Your task to perform on an android device: Open privacy settings Image 0: 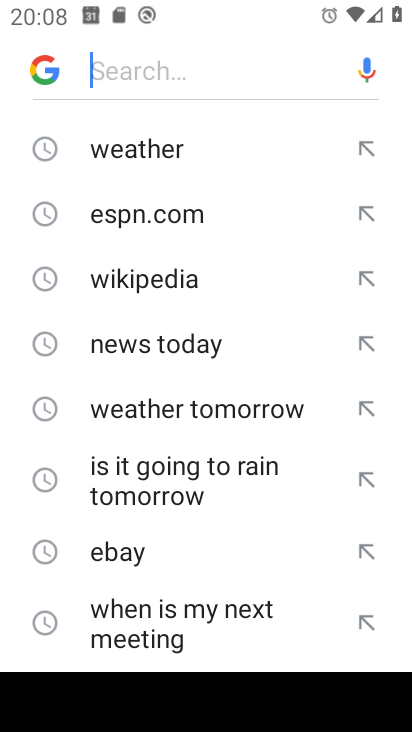
Step 0: press home button
Your task to perform on an android device: Open privacy settings Image 1: 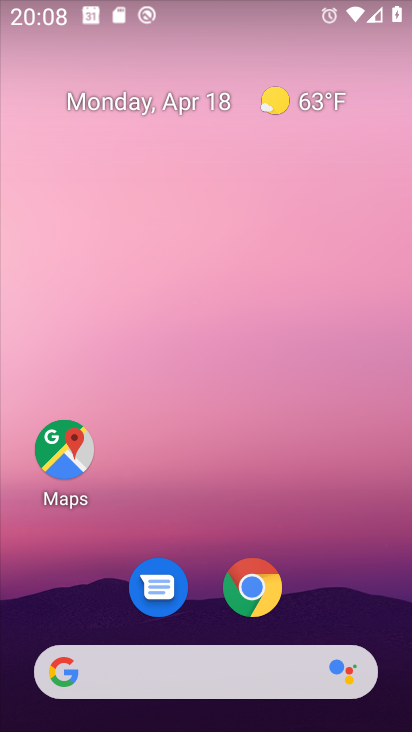
Step 1: drag from (339, 624) to (256, 86)
Your task to perform on an android device: Open privacy settings Image 2: 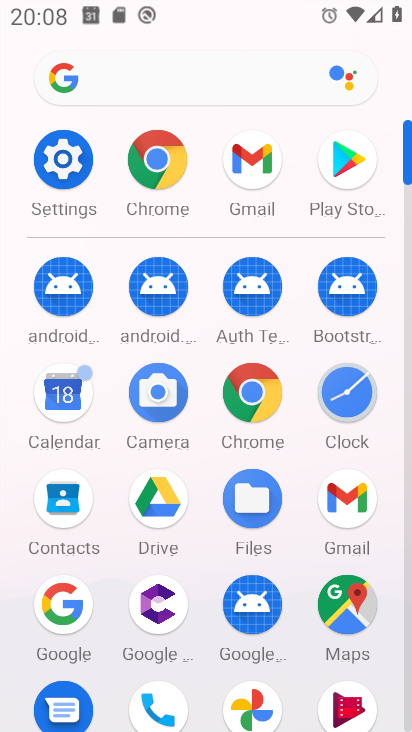
Step 2: click (77, 186)
Your task to perform on an android device: Open privacy settings Image 3: 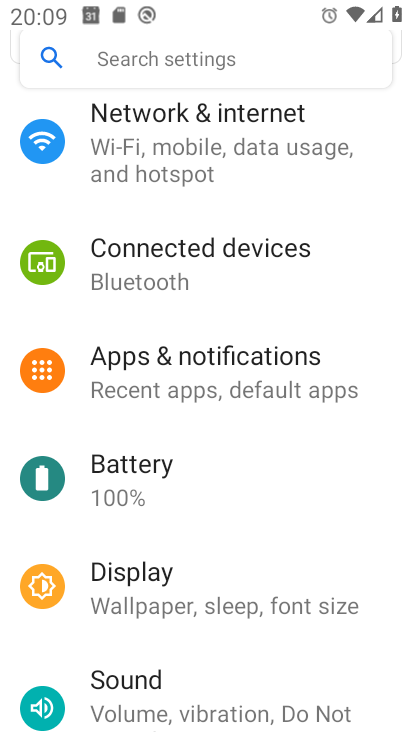
Step 3: drag from (125, 551) to (112, 156)
Your task to perform on an android device: Open privacy settings Image 4: 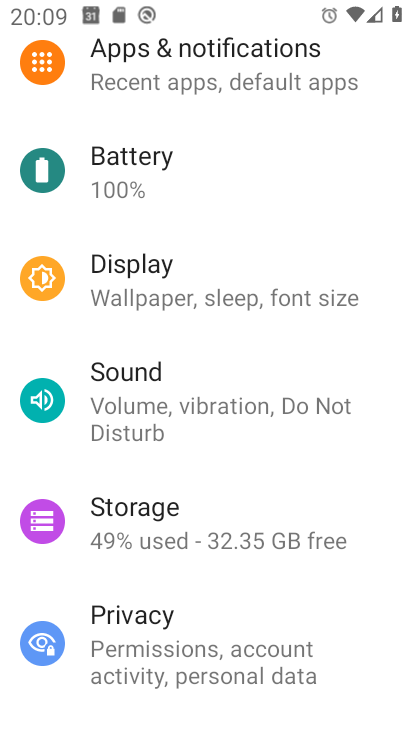
Step 4: drag from (222, 566) to (217, 220)
Your task to perform on an android device: Open privacy settings Image 5: 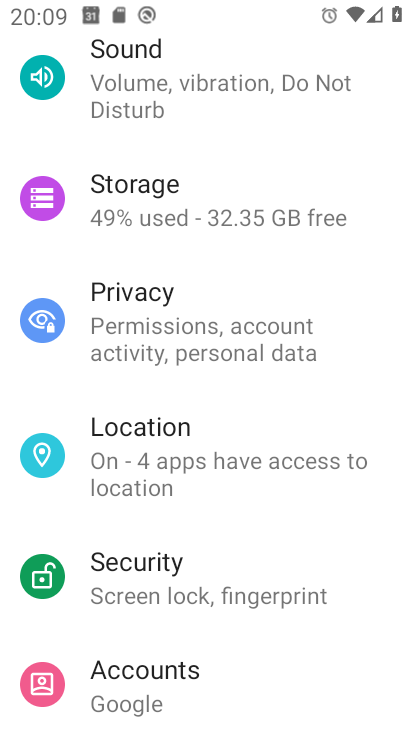
Step 5: click (227, 320)
Your task to perform on an android device: Open privacy settings Image 6: 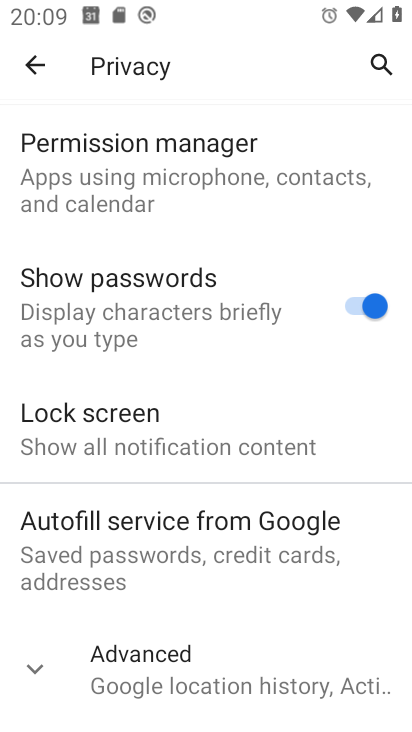
Step 6: task complete